Your task to perform on an android device: change notification settings in the gmail app Image 0: 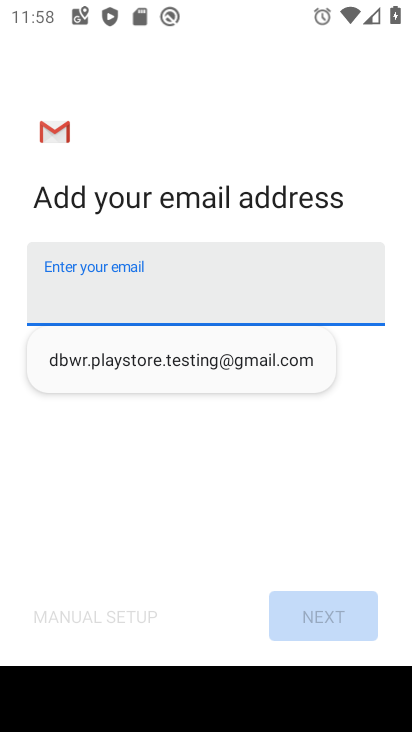
Step 0: press home button
Your task to perform on an android device: change notification settings in the gmail app Image 1: 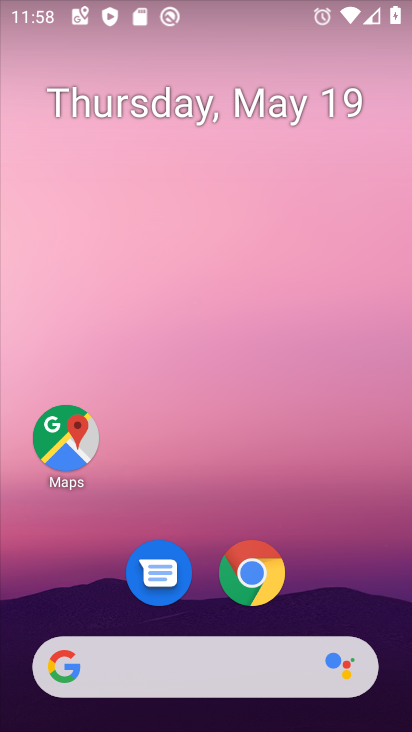
Step 1: drag from (320, 609) to (366, 87)
Your task to perform on an android device: change notification settings in the gmail app Image 2: 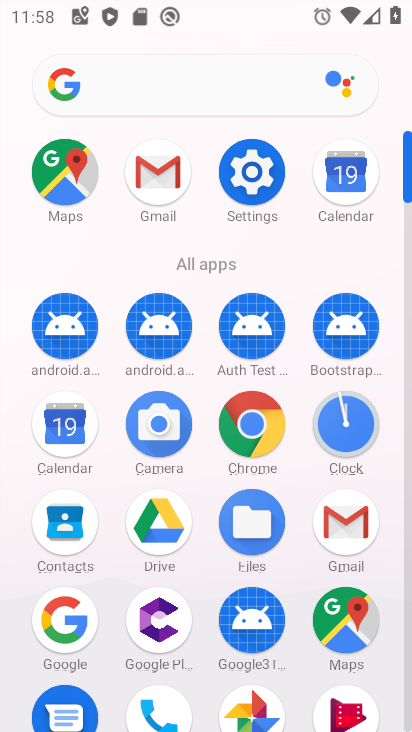
Step 2: click (351, 535)
Your task to perform on an android device: change notification settings in the gmail app Image 3: 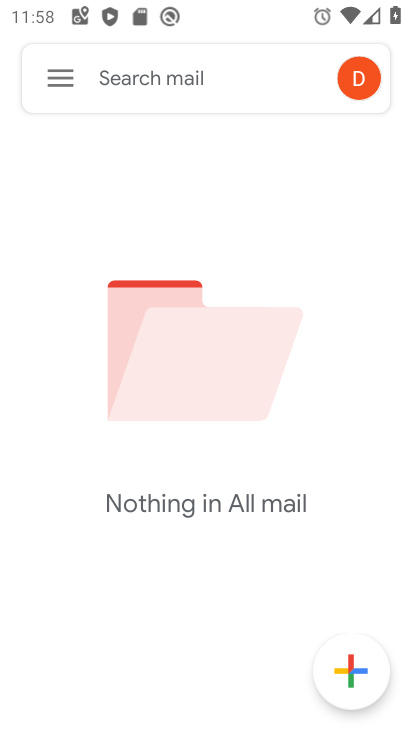
Step 3: click (63, 92)
Your task to perform on an android device: change notification settings in the gmail app Image 4: 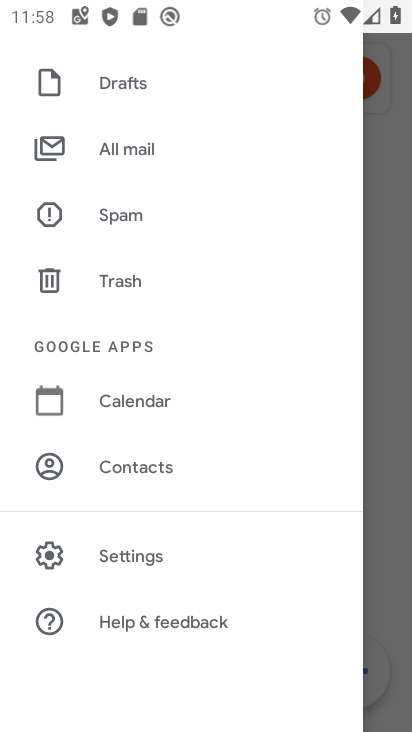
Step 4: click (117, 544)
Your task to perform on an android device: change notification settings in the gmail app Image 5: 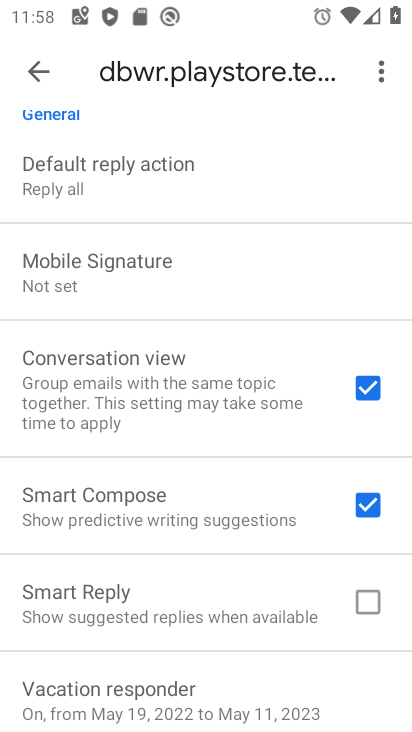
Step 5: click (33, 73)
Your task to perform on an android device: change notification settings in the gmail app Image 6: 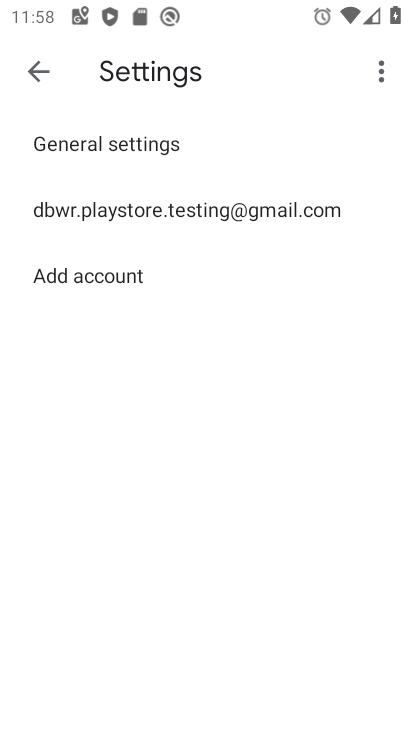
Step 6: click (174, 145)
Your task to perform on an android device: change notification settings in the gmail app Image 7: 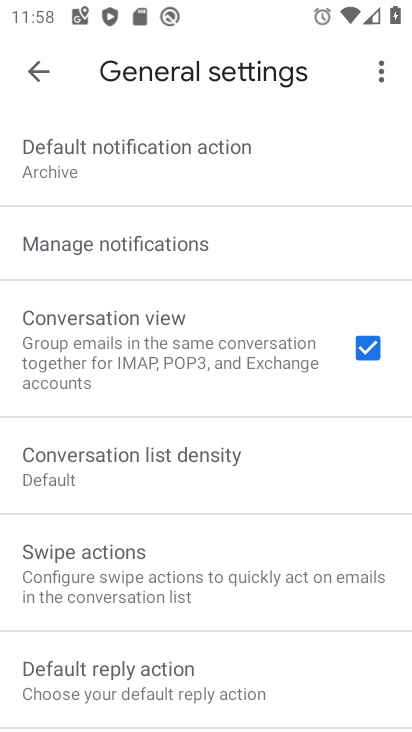
Step 7: click (157, 239)
Your task to perform on an android device: change notification settings in the gmail app Image 8: 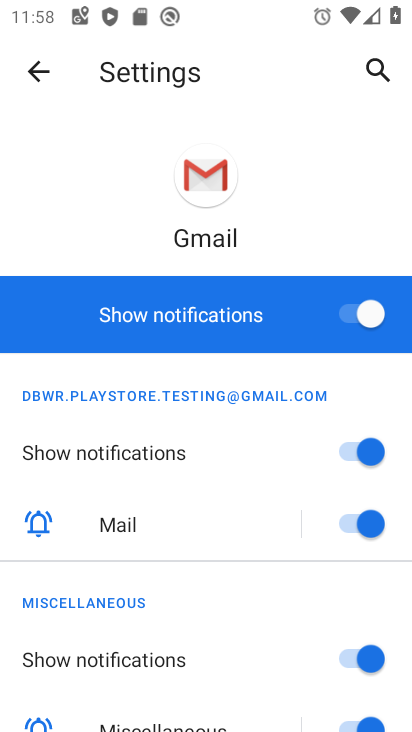
Step 8: click (351, 314)
Your task to perform on an android device: change notification settings in the gmail app Image 9: 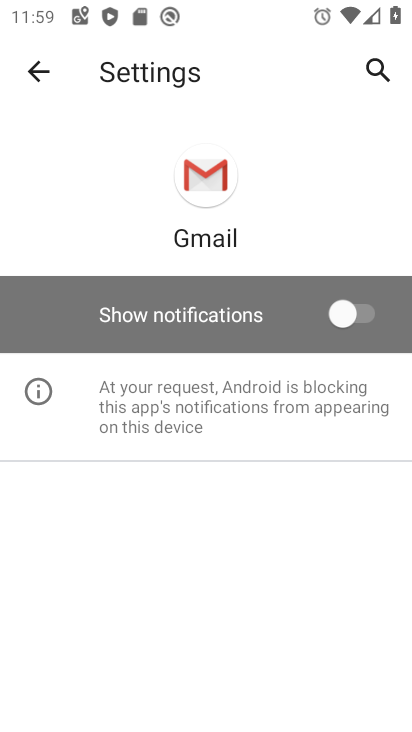
Step 9: task complete